Your task to perform on an android device: Go to Wikipedia Image 0: 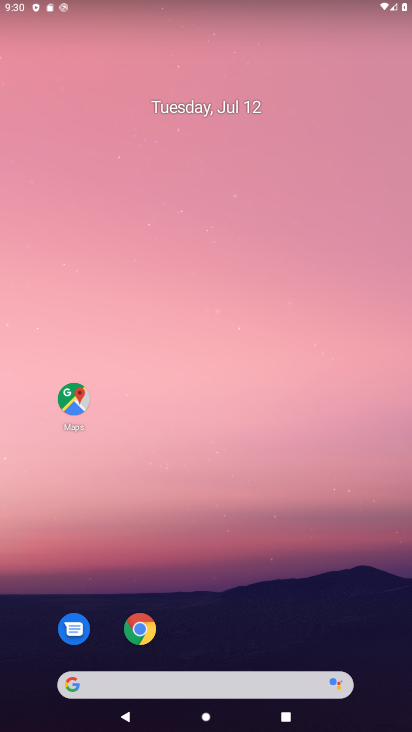
Step 0: drag from (313, 564) to (216, 103)
Your task to perform on an android device: Go to Wikipedia Image 1: 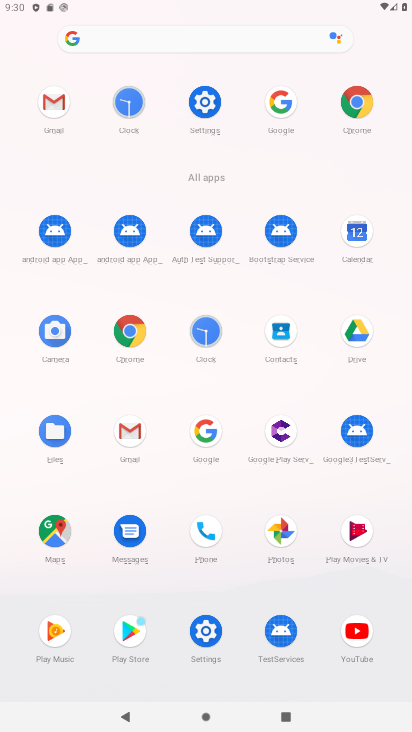
Step 1: click (133, 326)
Your task to perform on an android device: Go to Wikipedia Image 2: 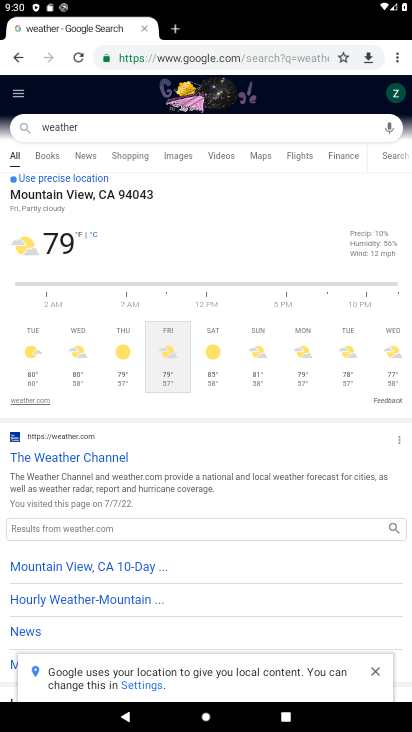
Step 2: click (256, 58)
Your task to perform on an android device: Go to Wikipedia Image 3: 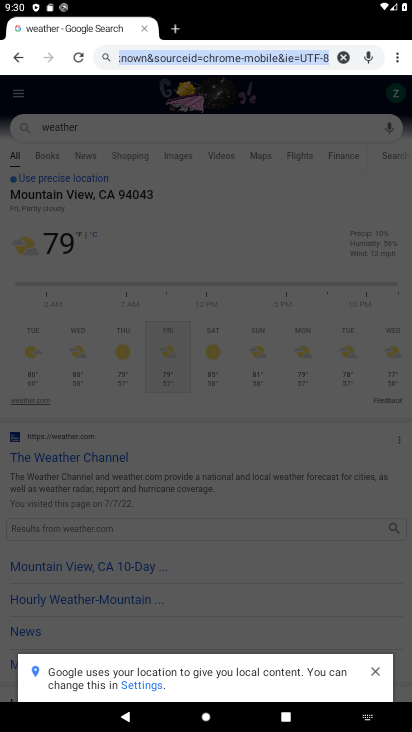
Step 3: click (343, 55)
Your task to perform on an android device: Go to Wikipedia Image 4: 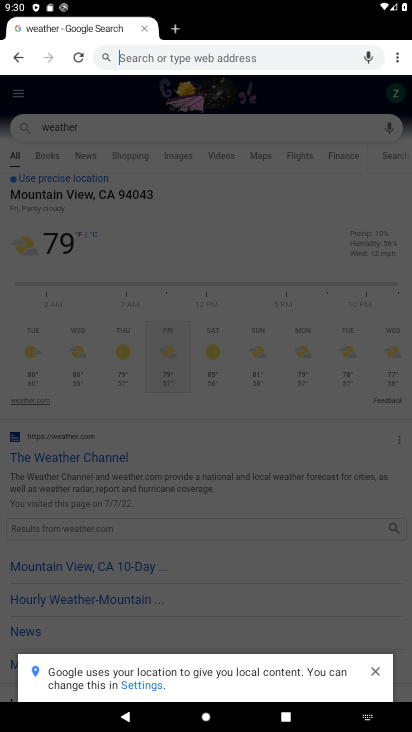
Step 4: type "wikipedia"
Your task to perform on an android device: Go to Wikipedia Image 5: 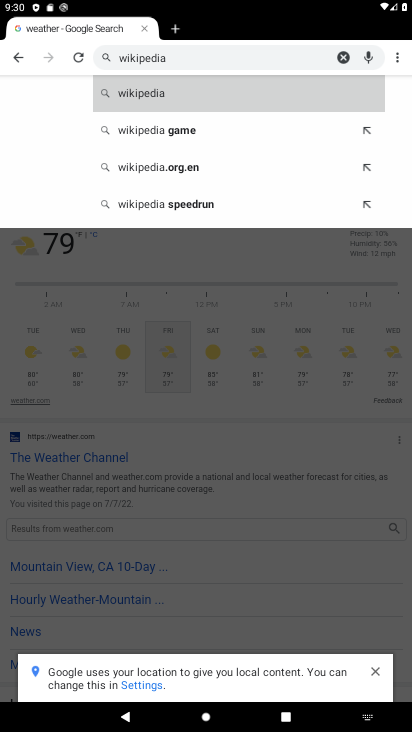
Step 5: click (134, 91)
Your task to perform on an android device: Go to Wikipedia Image 6: 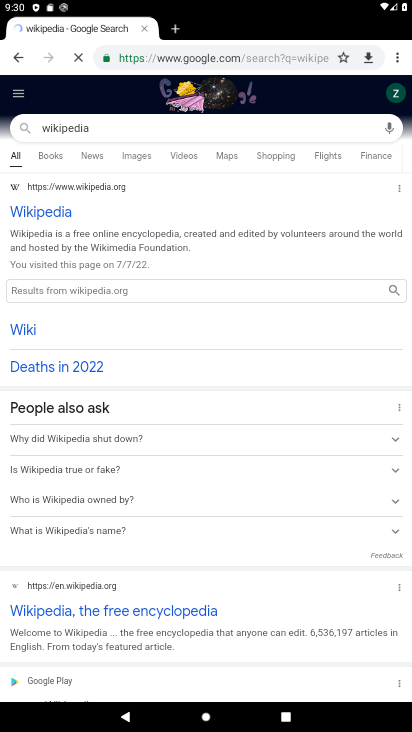
Step 6: click (41, 210)
Your task to perform on an android device: Go to Wikipedia Image 7: 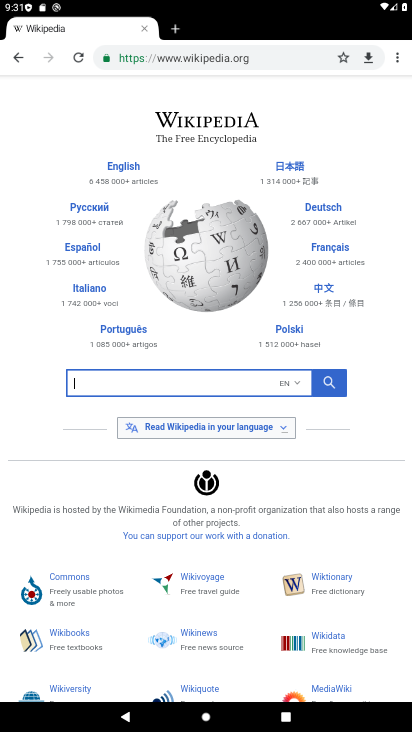
Step 7: task complete